Your task to perform on an android device: Open location settings Image 0: 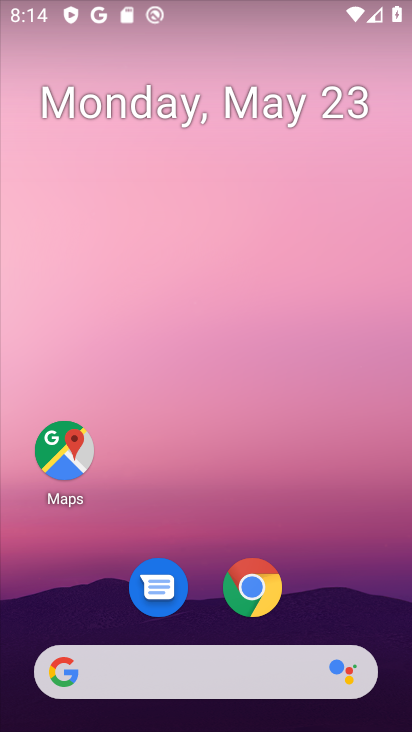
Step 0: drag from (229, 614) to (212, 90)
Your task to perform on an android device: Open location settings Image 1: 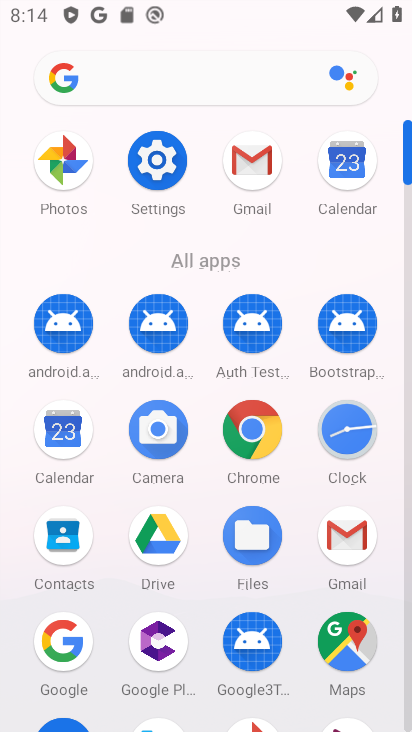
Step 1: click (159, 142)
Your task to perform on an android device: Open location settings Image 2: 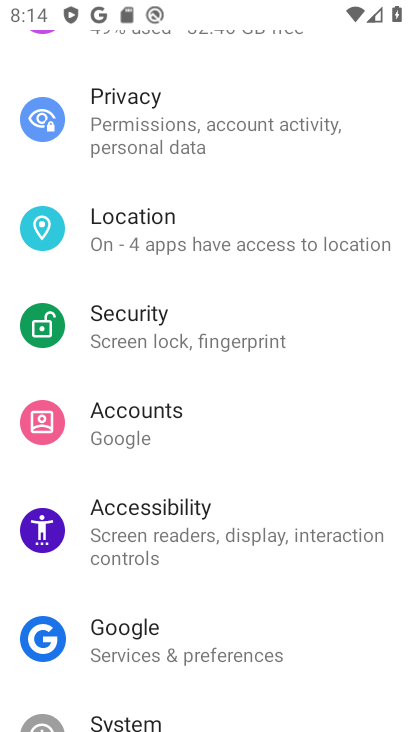
Step 2: click (158, 218)
Your task to perform on an android device: Open location settings Image 3: 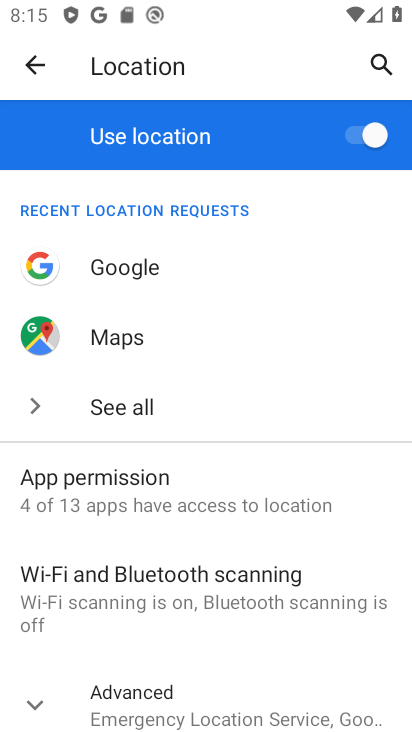
Step 3: task complete